Your task to perform on an android device: Open battery settings Image 0: 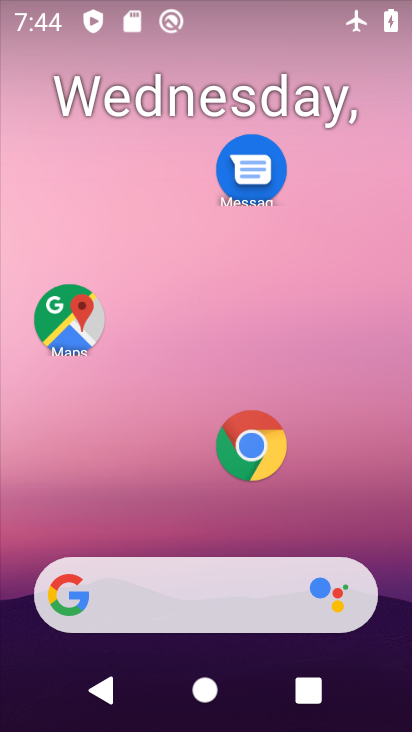
Step 0: drag from (241, 635) to (289, 18)
Your task to perform on an android device: Open battery settings Image 1: 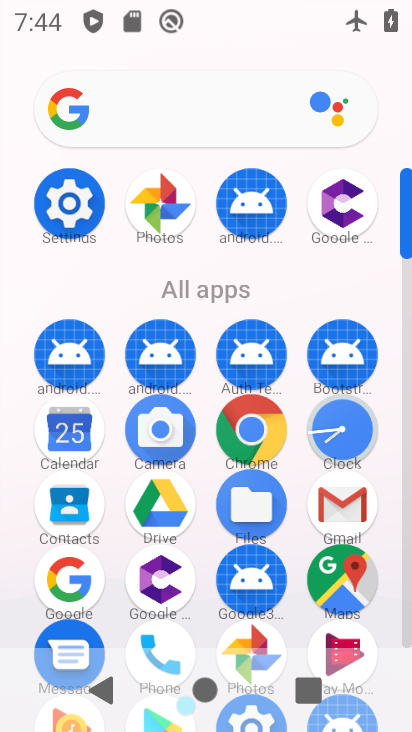
Step 1: click (58, 196)
Your task to perform on an android device: Open battery settings Image 2: 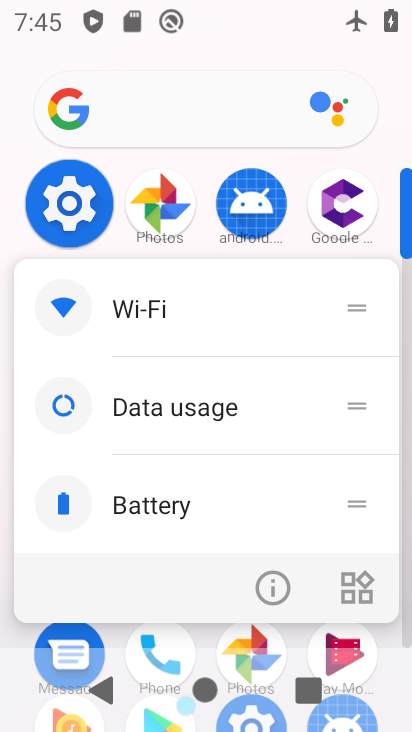
Step 2: click (67, 199)
Your task to perform on an android device: Open battery settings Image 3: 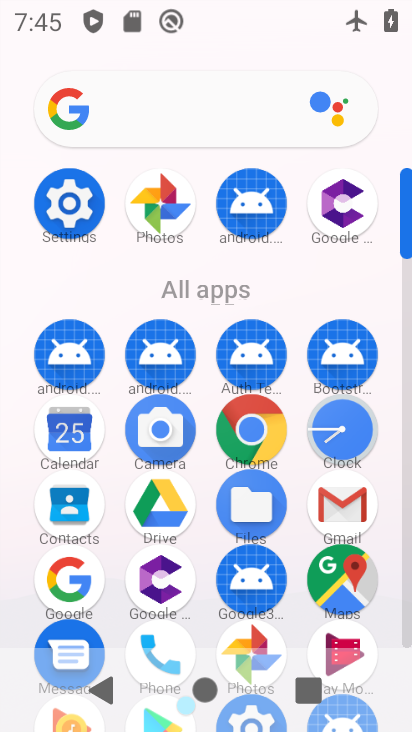
Step 3: click (66, 207)
Your task to perform on an android device: Open battery settings Image 4: 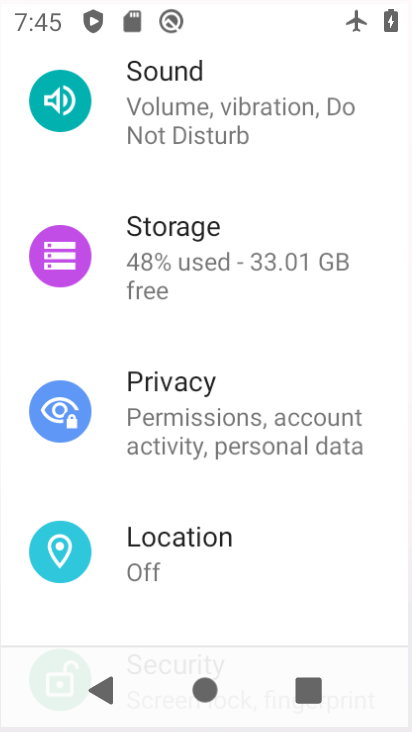
Step 4: click (61, 204)
Your task to perform on an android device: Open battery settings Image 5: 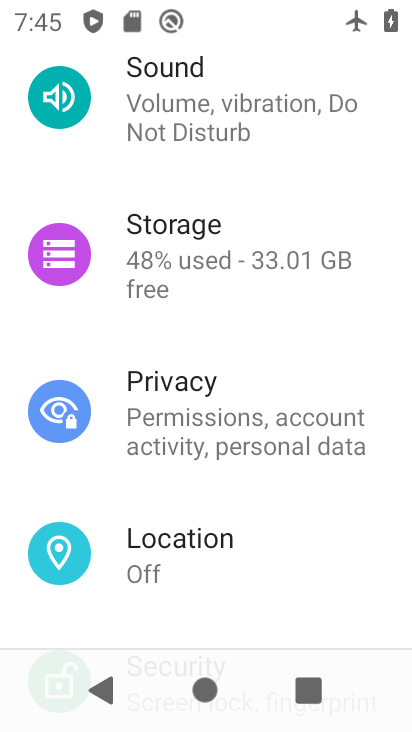
Step 5: click (35, 184)
Your task to perform on an android device: Open battery settings Image 6: 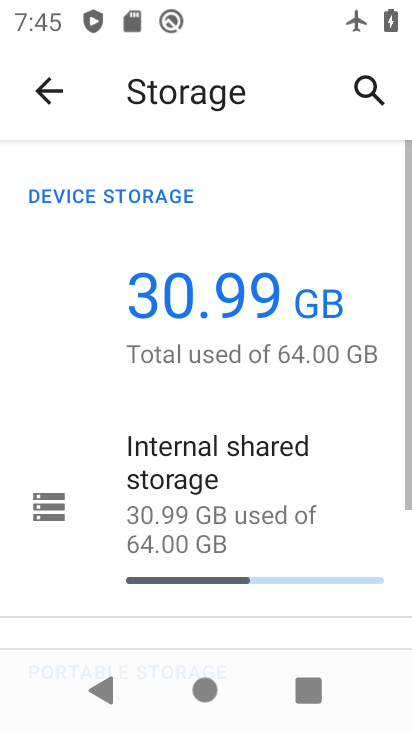
Step 6: click (35, 183)
Your task to perform on an android device: Open battery settings Image 7: 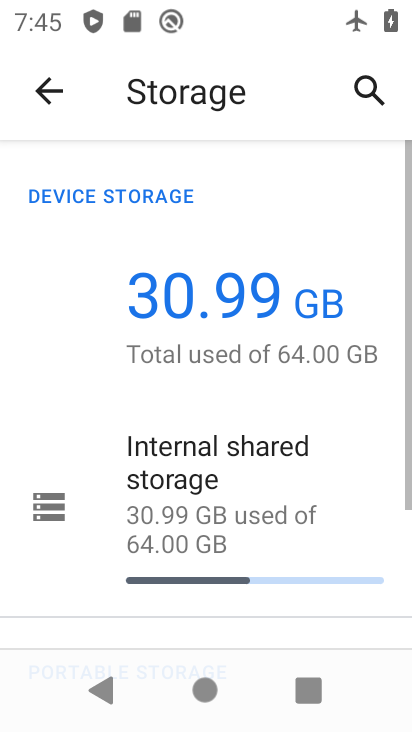
Step 7: click (35, 183)
Your task to perform on an android device: Open battery settings Image 8: 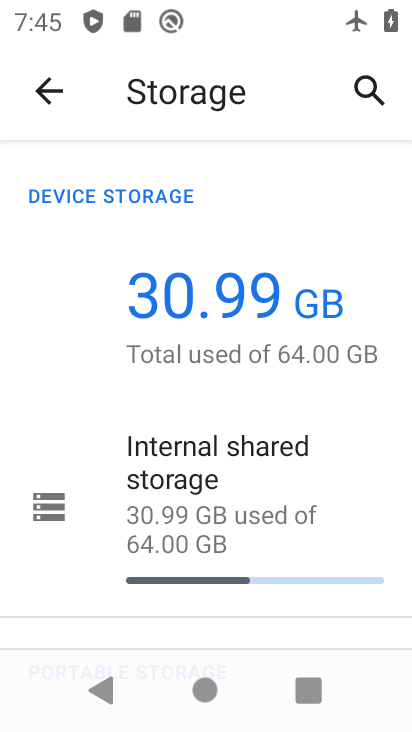
Step 8: click (50, 96)
Your task to perform on an android device: Open battery settings Image 9: 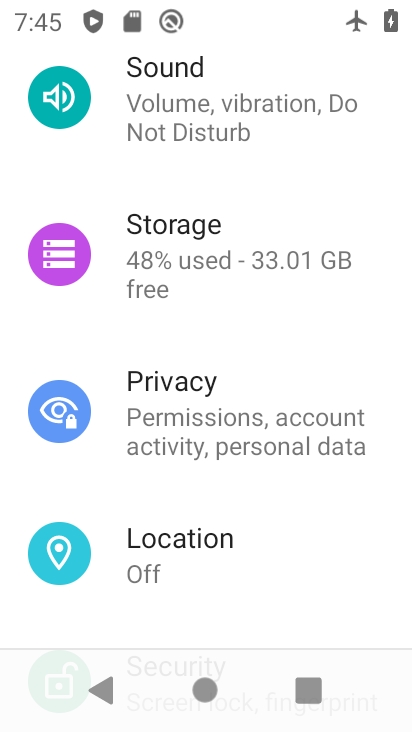
Step 9: drag from (169, 268) to (171, 80)
Your task to perform on an android device: Open battery settings Image 10: 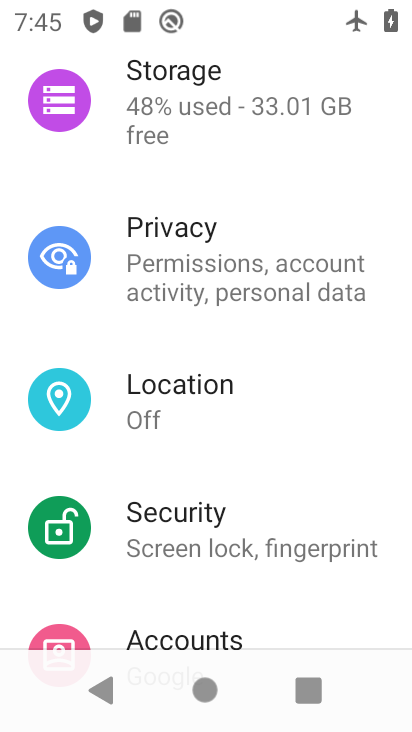
Step 10: drag from (178, 145) to (231, 493)
Your task to perform on an android device: Open battery settings Image 11: 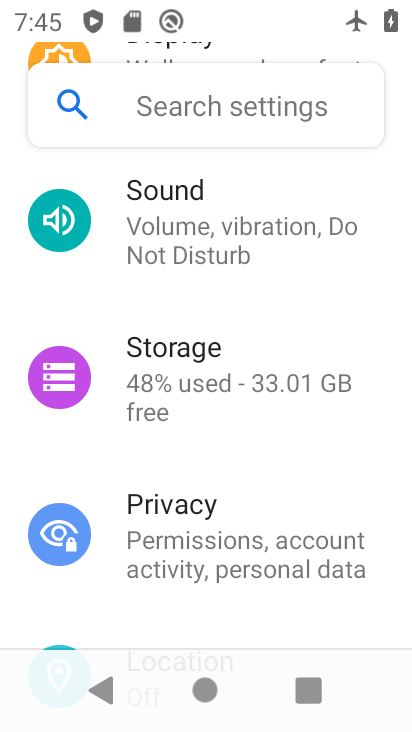
Step 11: drag from (200, 259) to (200, 493)
Your task to perform on an android device: Open battery settings Image 12: 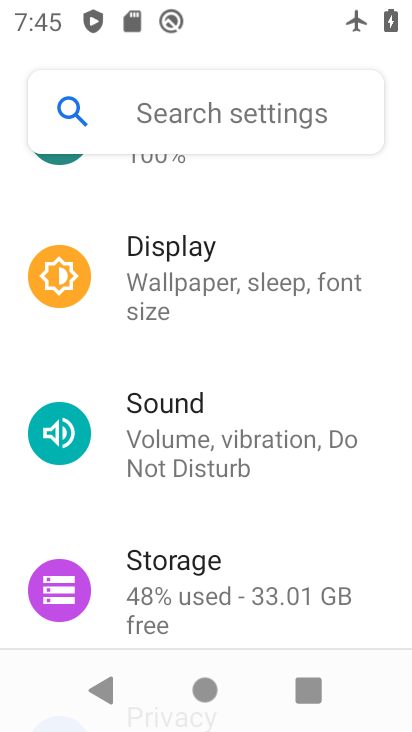
Step 12: drag from (183, 268) to (250, 720)
Your task to perform on an android device: Open battery settings Image 13: 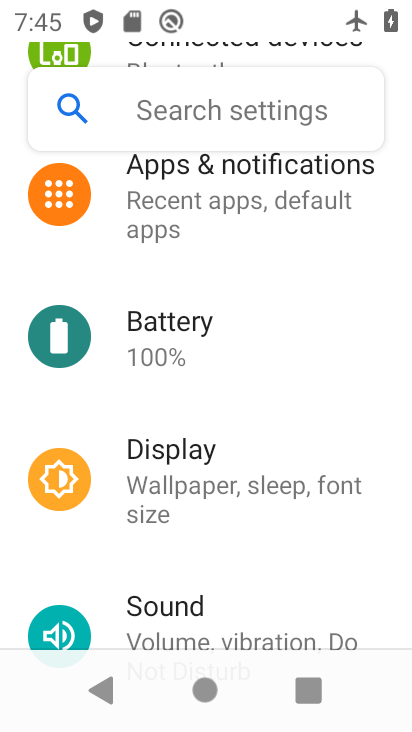
Step 13: click (155, 342)
Your task to perform on an android device: Open battery settings Image 14: 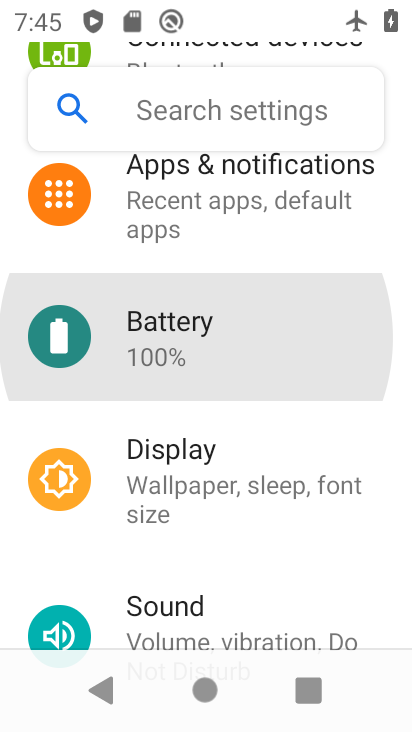
Step 14: click (155, 342)
Your task to perform on an android device: Open battery settings Image 15: 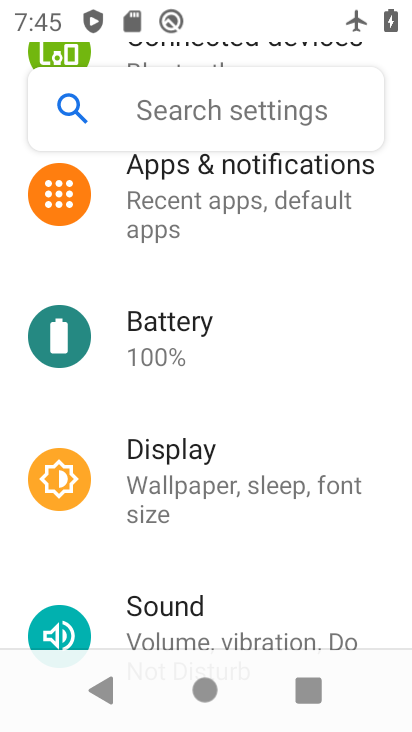
Step 15: click (155, 342)
Your task to perform on an android device: Open battery settings Image 16: 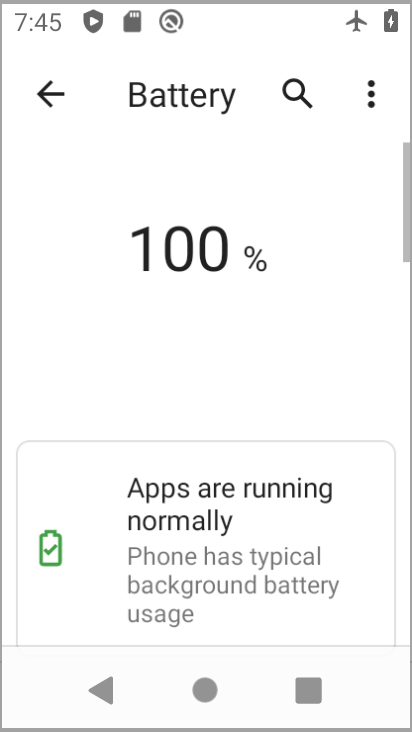
Step 16: click (155, 342)
Your task to perform on an android device: Open battery settings Image 17: 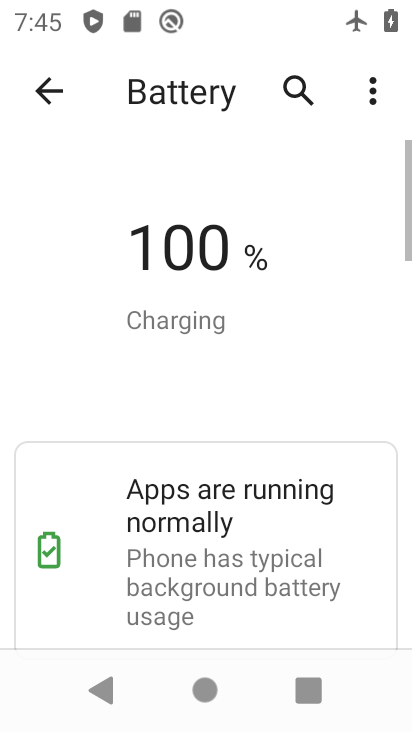
Step 17: click (156, 335)
Your task to perform on an android device: Open battery settings Image 18: 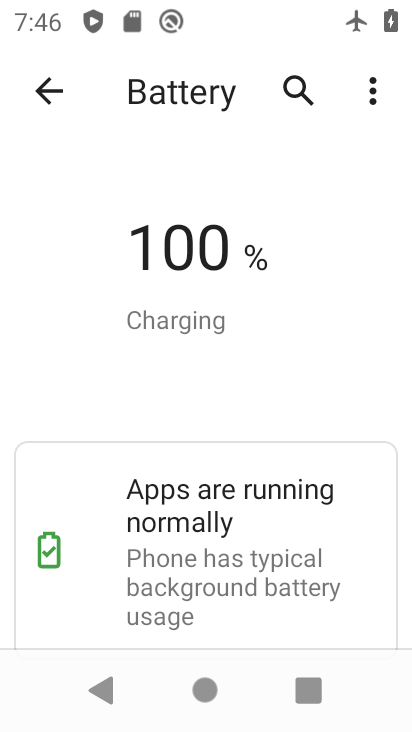
Step 18: task complete